Your task to perform on an android device: turn off notifications in google photos Image 0: 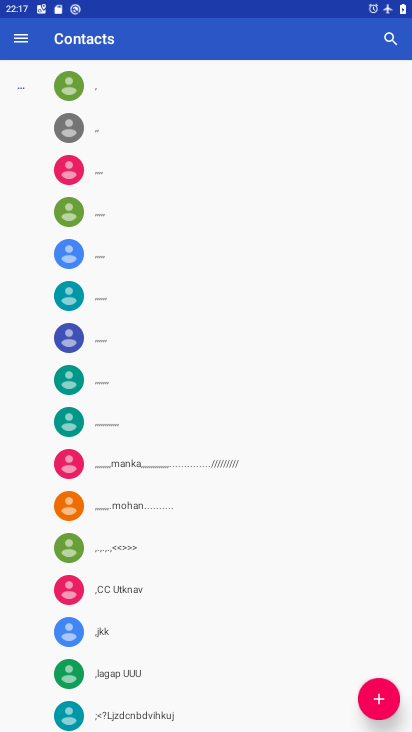
Step 0: press home button
Your task to perform on an android device: turn off notifications in google photos Image 1: 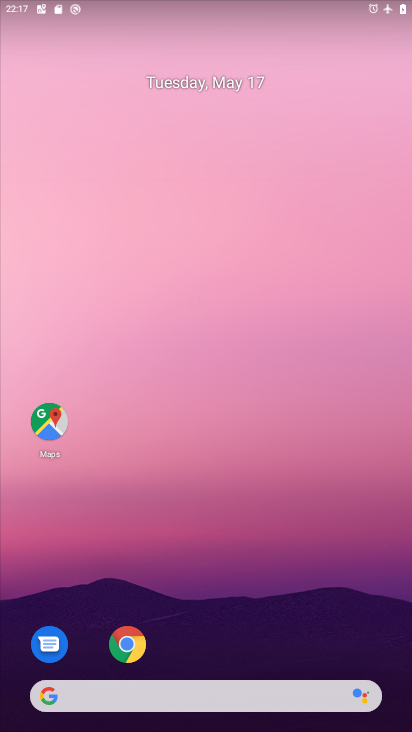
Step 1: drag from (224, 640) to (207, 146)
Your task to perform on an android device: turn off notifications in google photos Image 2: 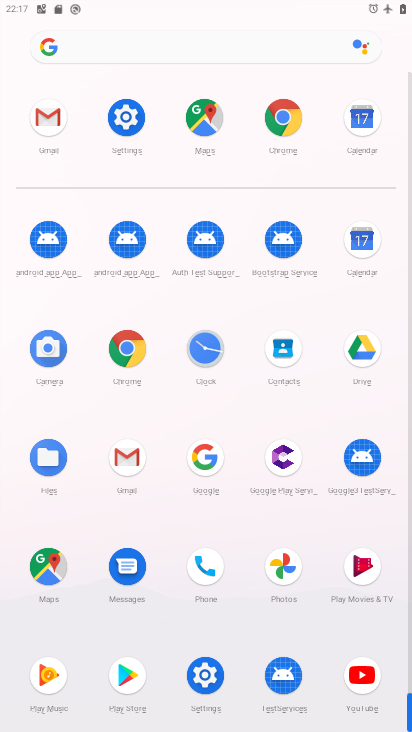
Step 2: click (282, 560)
Your task to perform on an android device: turn off notifications in google photos Image 3: 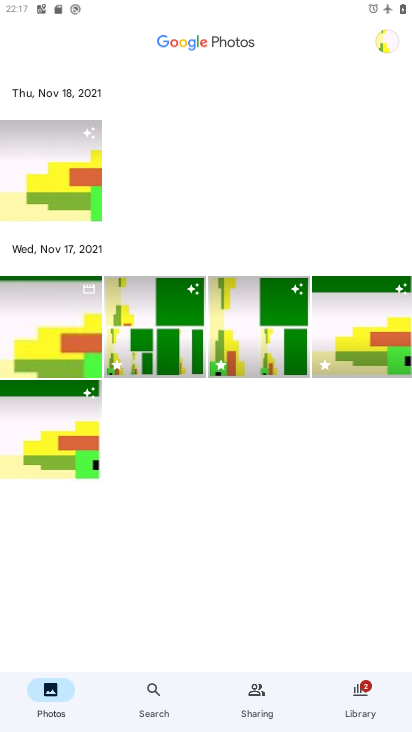
Step 3: click (392, 46)
Your task to perform on an android device: turn off notifications in google photos Image 4: 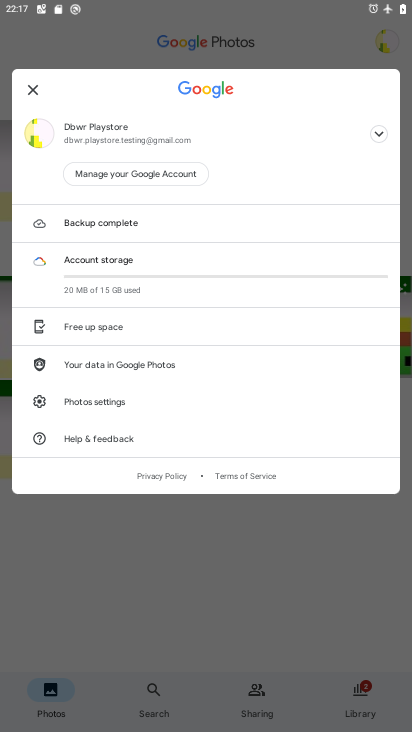
Step 4: click (130, 402)
Your task to perform on an android device: turn off notifications in google photos Image 5: 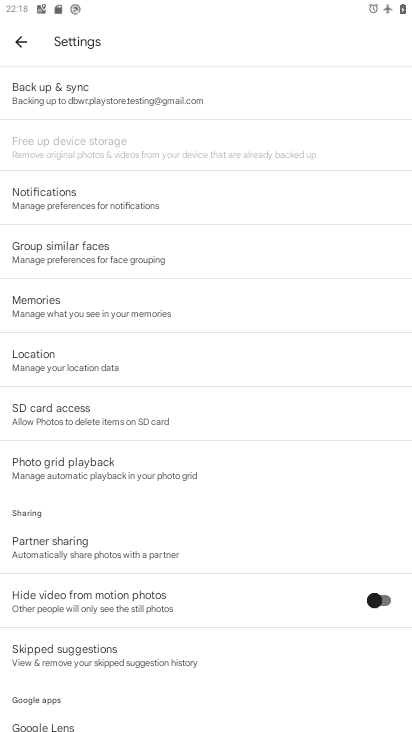
Step 5: click (84, 200)
Your task to perform on an android device: turn off notifications in google photos Image 6: 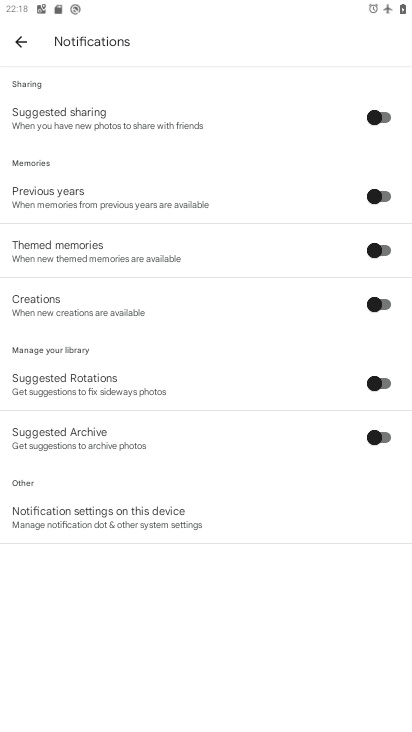
Step 6: click (126, 514)
Your task to perform on an android device: turn off notifications in google photos Image 7: 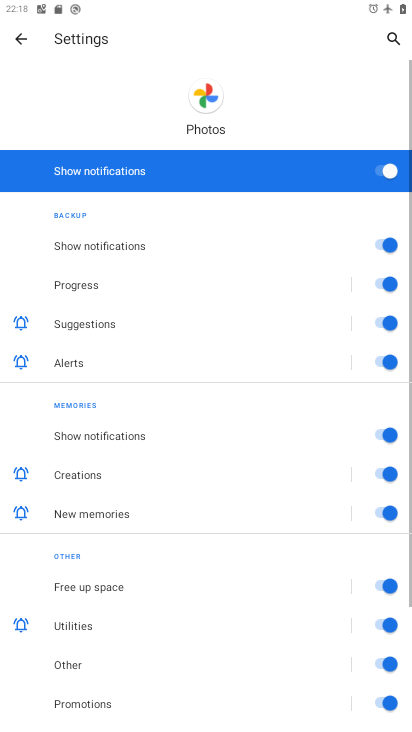
Step 7: click (378, 170)
Your task to perform on an android device: turn off notifications in google photos Image 8: 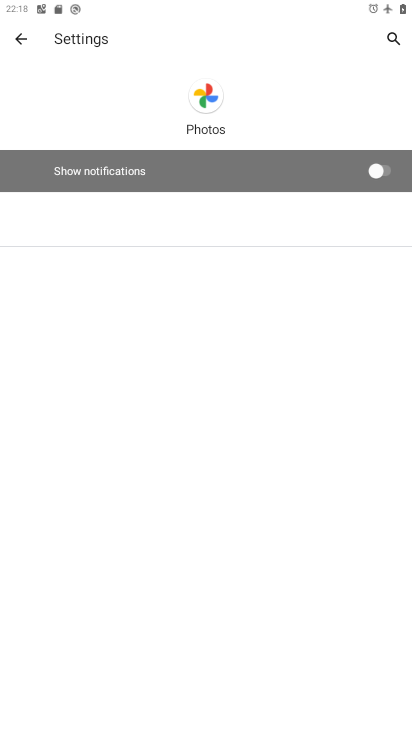
Step 8: task complete